Your task to perform on an android device: show emergency info Image 0: 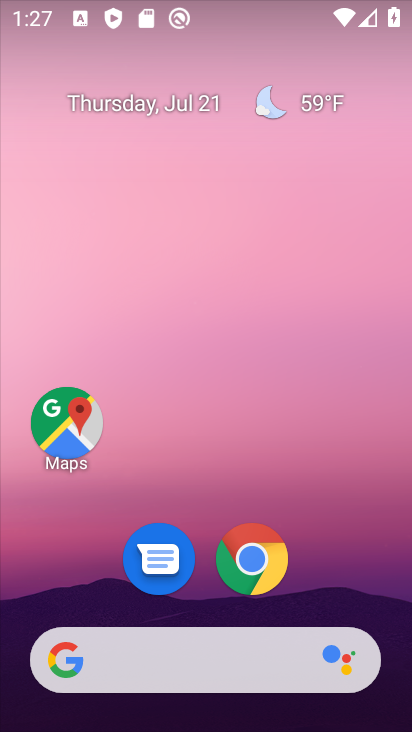
Step 0: drag from (251, 655) to (173, 34)
Your task to perform on an android device: show emergency info Image 1: 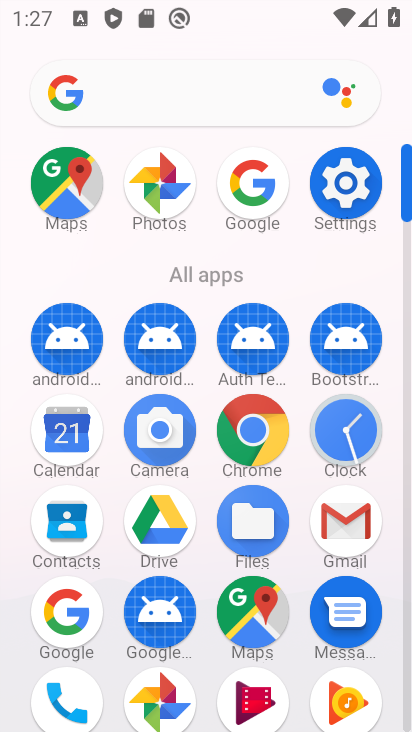
Step 1: click (205, 200)
Your task to perform on an android device: show emergency info Image 2: 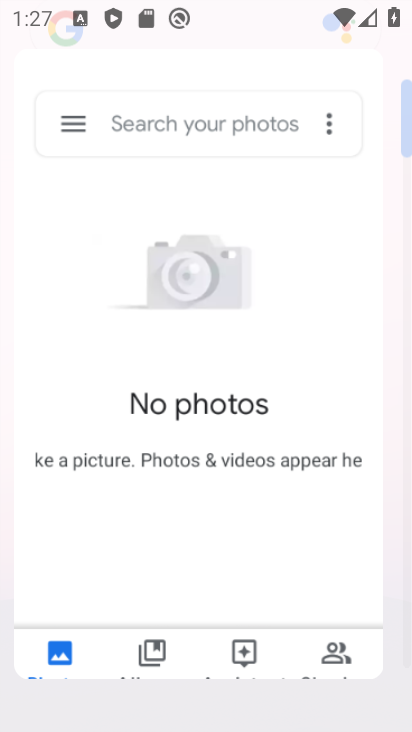
Step 2: click (253, 254)
Your task to perform on an android device: show emergency info Image 3: 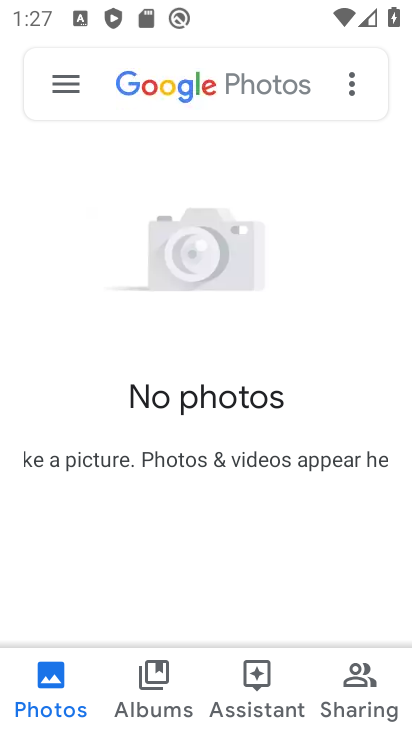
Step 3: press home button
Your task to perform on an android device: show emergency info Image 4: 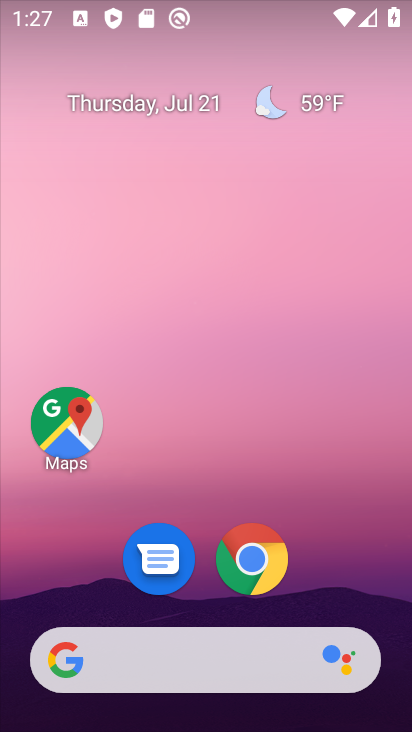
Step 4: drag from (171, 559) to (287, 15)
Your task to perform on an android device: show emergency info Image 5: 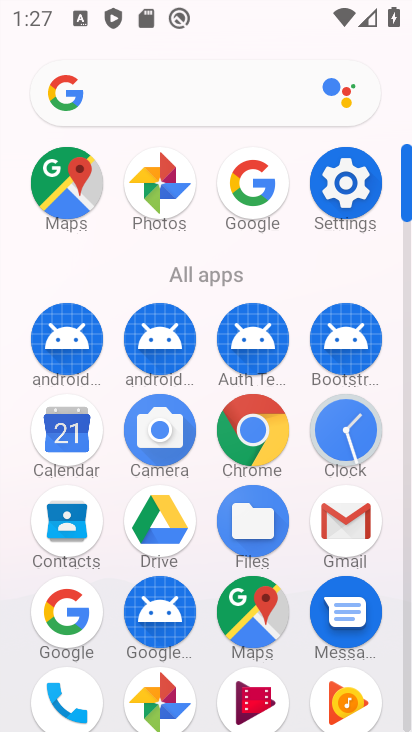
Step 5: click (357, 185)
Your task to perform on an android device: show emergency info Image 6: 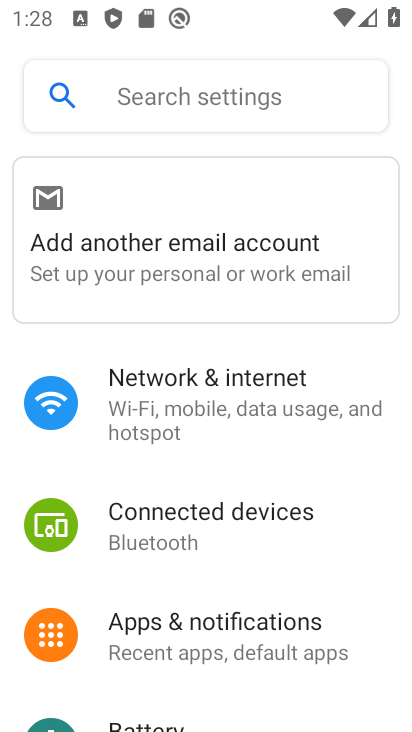
Step 6: drag from (173, 442) to (200, 116)
Your task to perform on an android device: show emergency info Image 7: 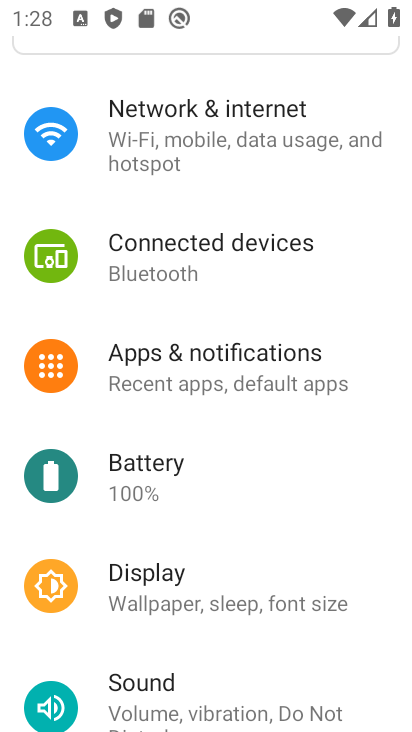
Step 7: drag from (251, 511) to (286, 20)
Your task to perform on an android device: show emergency info Image 8: 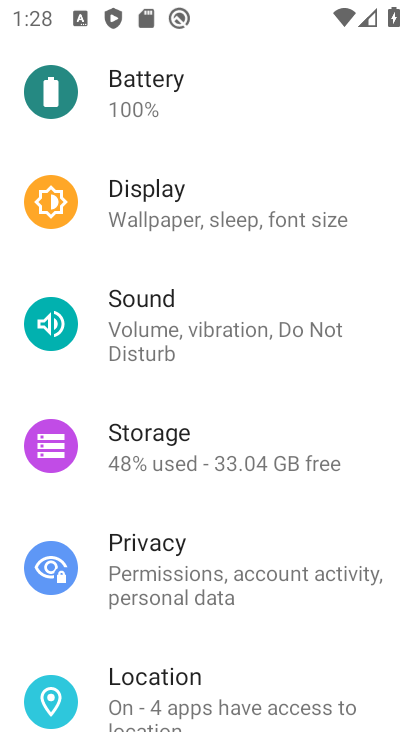
Step 8: drag from (147, 582) to (133, 35)
Your task to perform on an android device: show emergency info Image 9: 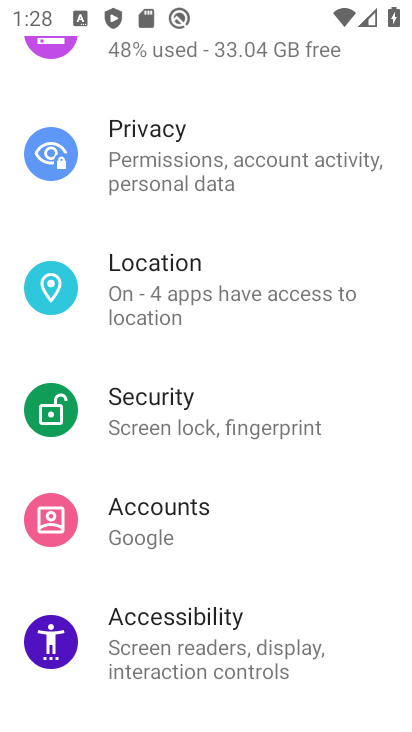
Step 9: drag from (139, 585) to (145, 140)
Your task to perform on an android device: show emergency info Image 10: 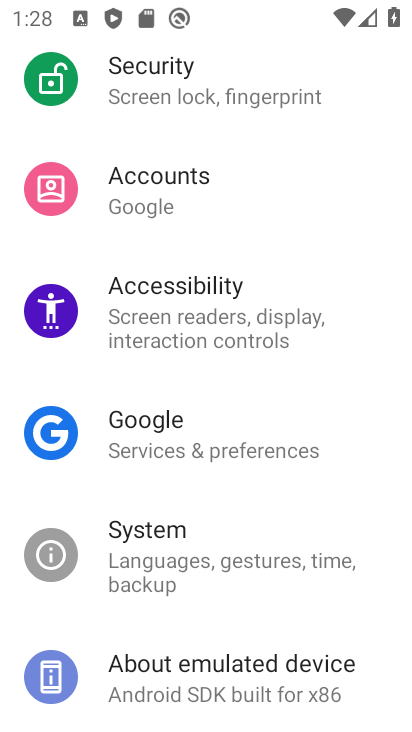
Step 10: click (181, 666)
Your task to perform on an android device: show emergency info Image 11: 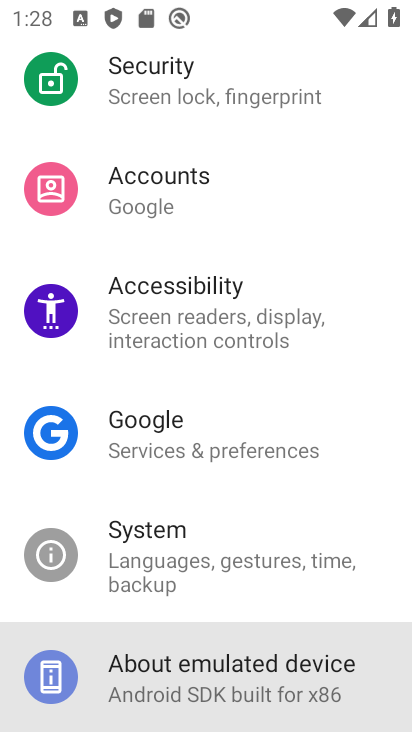
Step 11: click (190, 669)
Your task to perform on an android device: show emergency info Image 12: 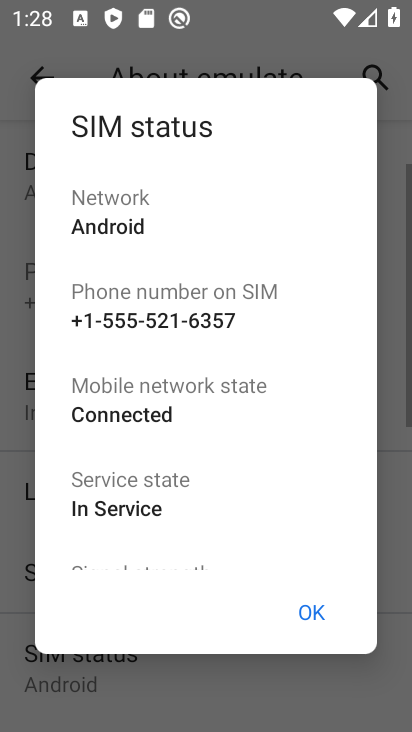
Step 12: click (320, 614)
Your task to perform on an android device: show emergency info Image 13: 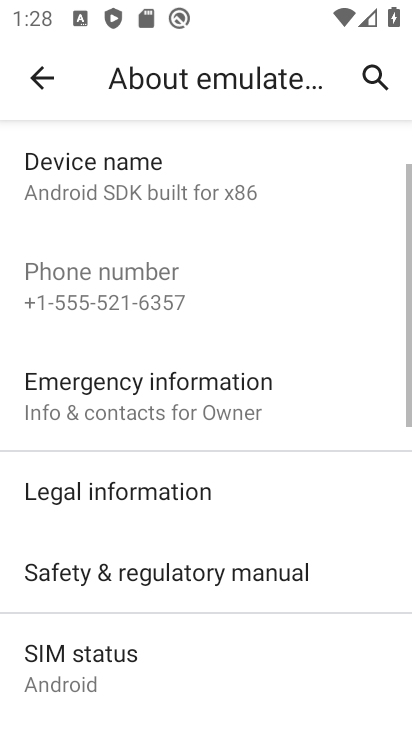
Step 13: click (209, 390)
Your task to perform on an android device: show emergency info Image 14: 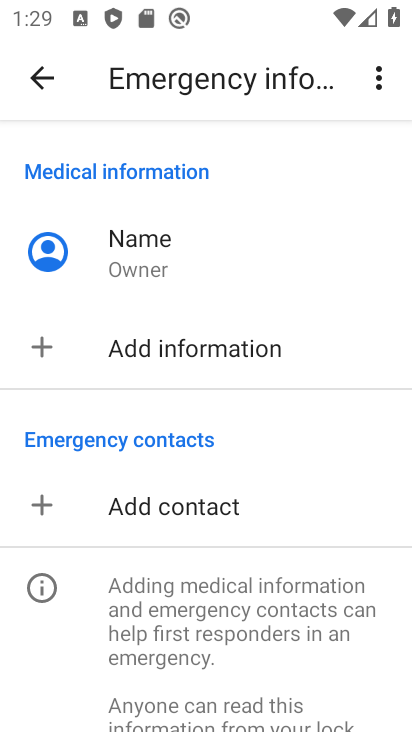
Step 14: task complete